Your task to perform on an android device: When is my next meeting? Image 0: 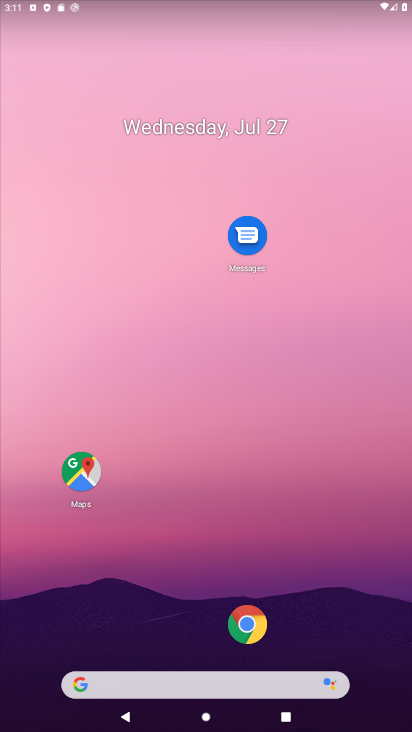
Step 0: click (168, 122)
Your task to perform on an android device: When is my next meeting? Image 1: 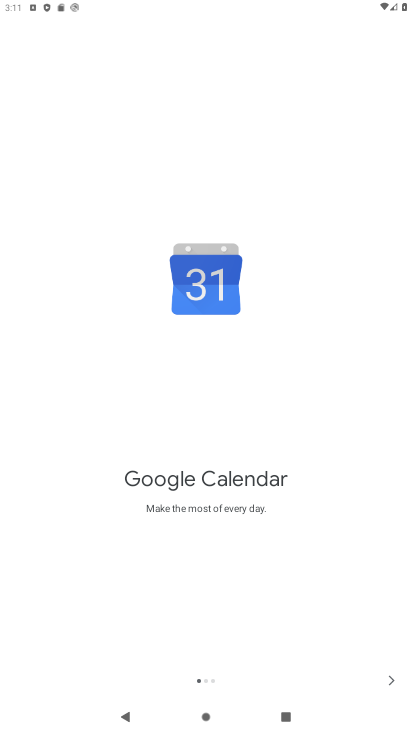
Step 1: click (381, 679)
Your task to perform on an android device: When is my next meeting? Image 2: 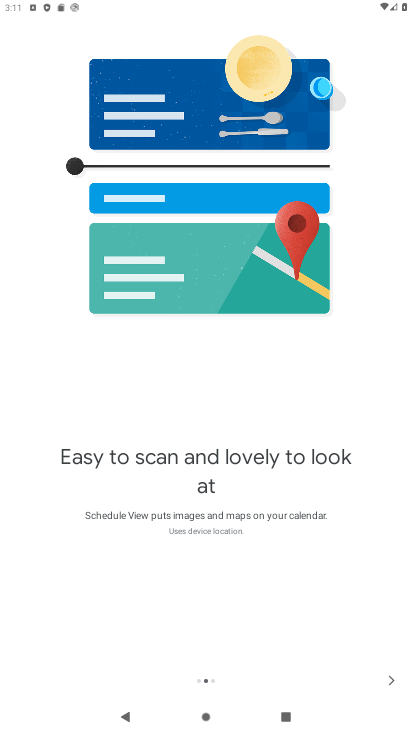
Step 2: click (381, 679)
Your task to perform on an android device: When is my next meeting? Image 3: 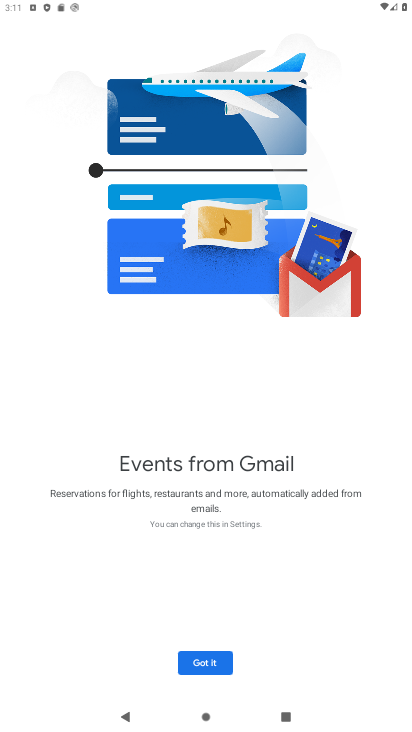
Step 3: click (208, 675)
Your task to perform on an android device: When is my next meeting? Image 4: 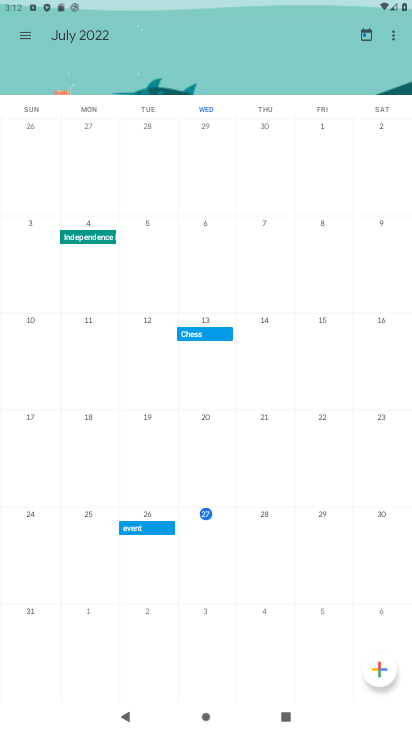
Step 4: task complete